Your task to perform on an android device: Open eBay Image 0: 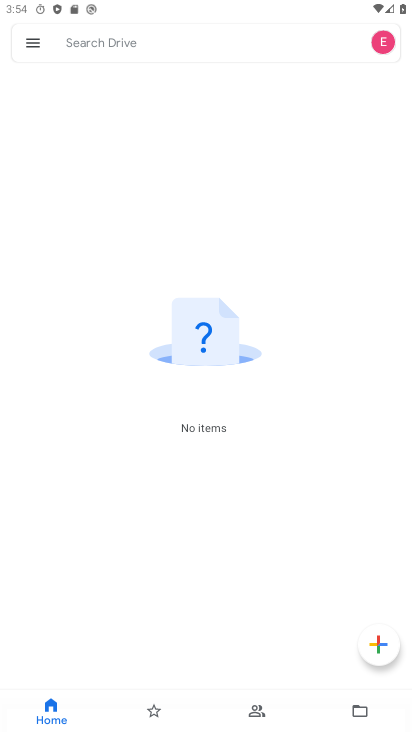
Step 0: press back button
Your task to perform on an android device: Open eBay Image 1: 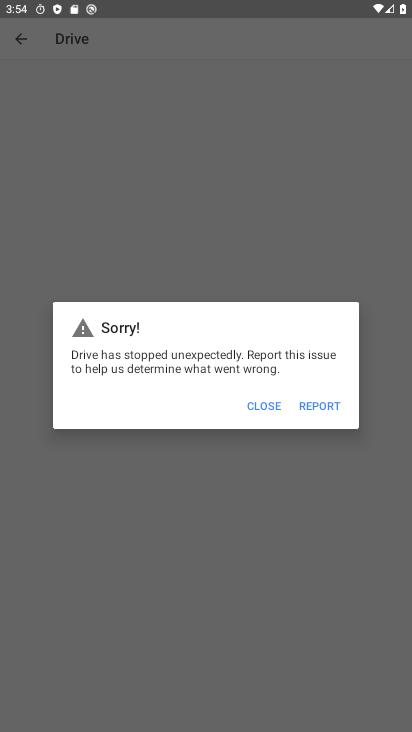
Step 1: press home button
Your task to perform on an android device: Open eBay Image 2: 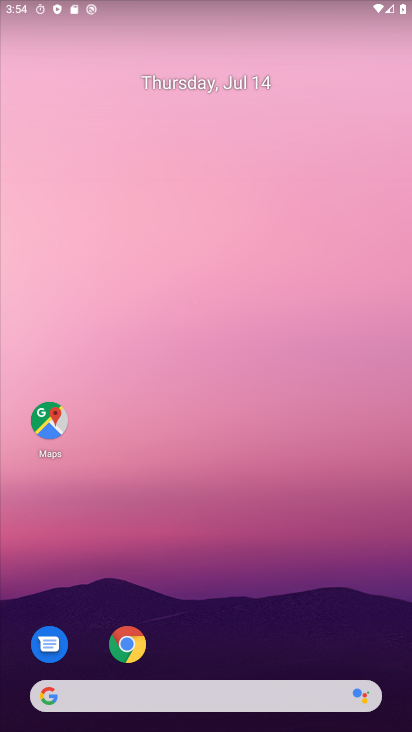
Step 2: click (126, 645)
Your task to perform on an android device: Open eBay Image 3: 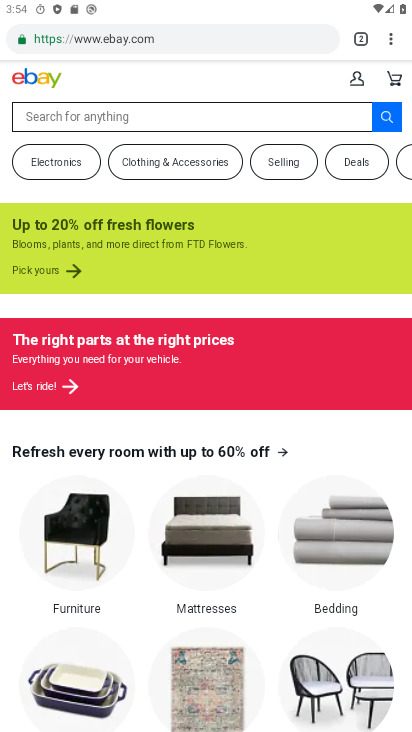
Step 3: task complete